Your task to perform on an android device: open device folders in google photos Image 0: 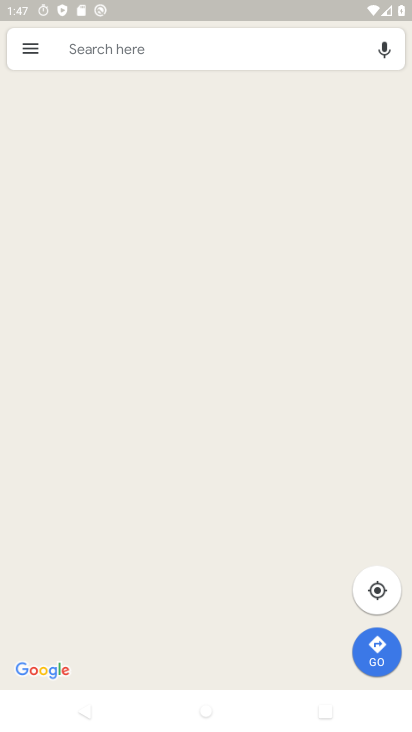
Step 0: drag from (275, 646) to (346, 237)
Your task to perform on an android device: open device folders in google photos Image 1: 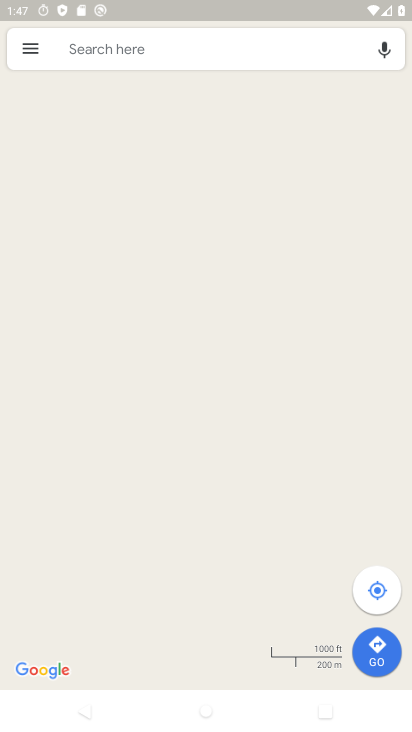
Step 1: press home button
Your task to perform on an android device: open device folders in google photos Image 2: 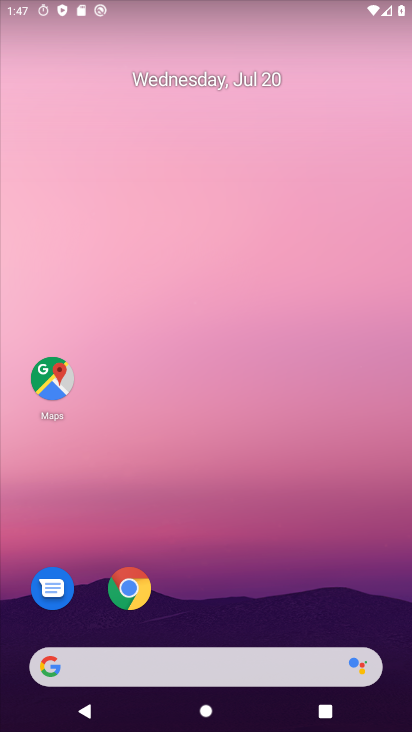
Step 2: drag from (321, 656) to (323, 24)
Your task to perform on an android device: open device folders in google photos Image 3: 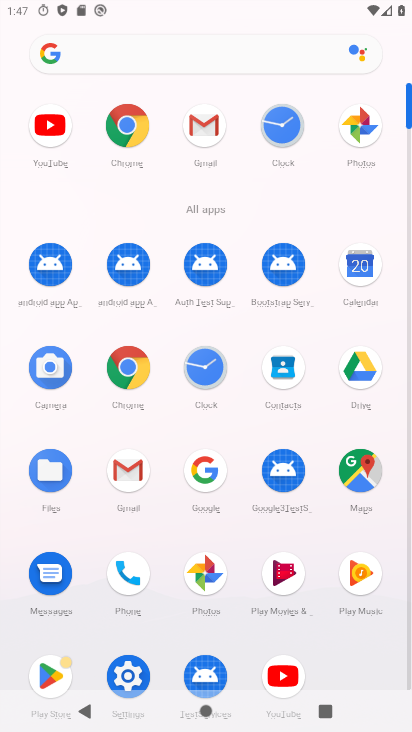
Step 3: click (207, 574)
Your task to perform on an android device: open device folders in google photos Image 4: 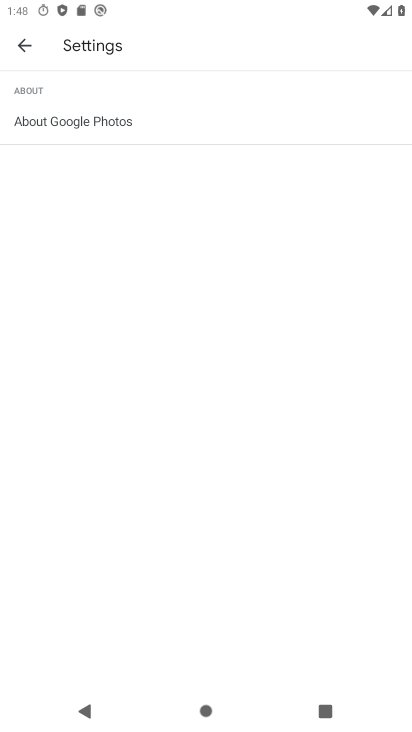
Step 4: press back button
Your task to perform on an android device: open device folders in google photos Image 5: 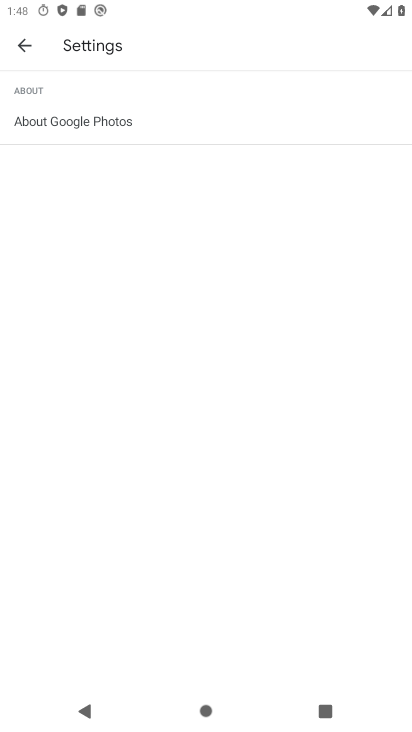
Step 5: press back button
Your task to perform on an android device: open device folders in google photos Image 6: 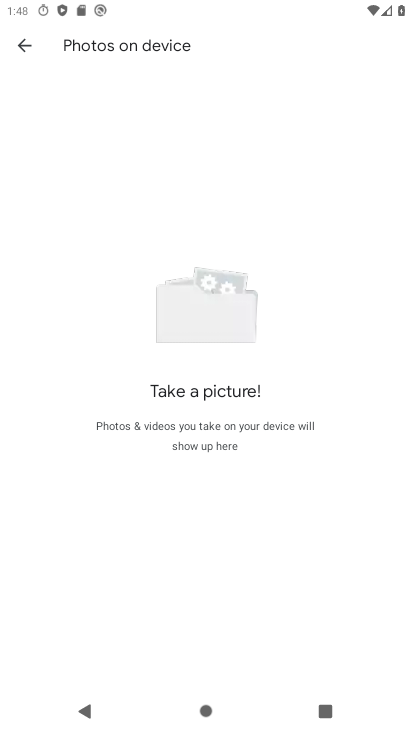
Step 6: press back button
Your task to perform on an android device: open device folders in google photos Image 7: 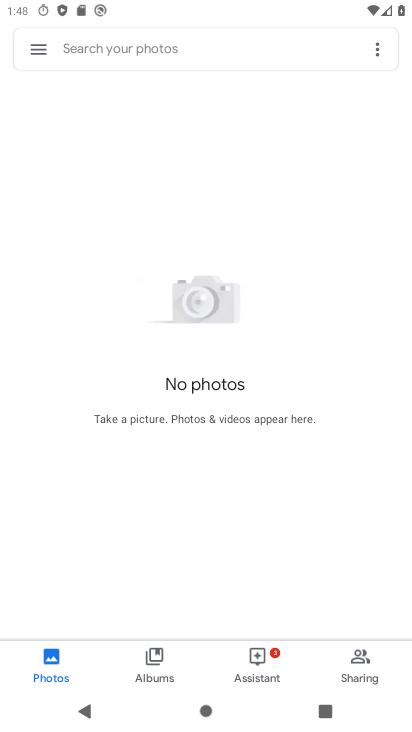
Step 7: click (48, 50)
Your task to perform on an android device: open device folders in google photos Image 8: 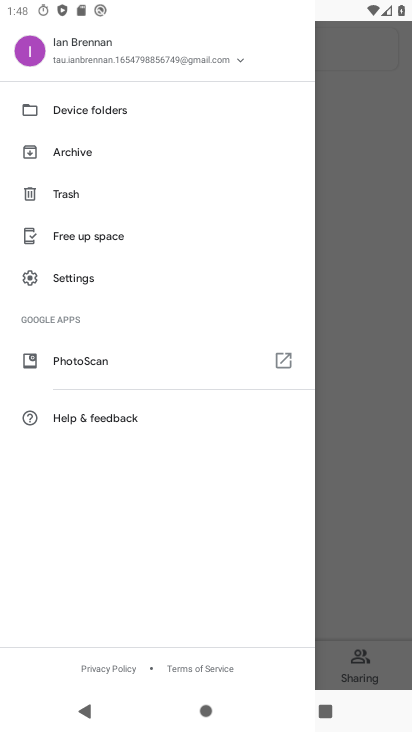
Step 8: click (89, 101)
Your task to perform on an android device: open device folders in google photos Image 9: 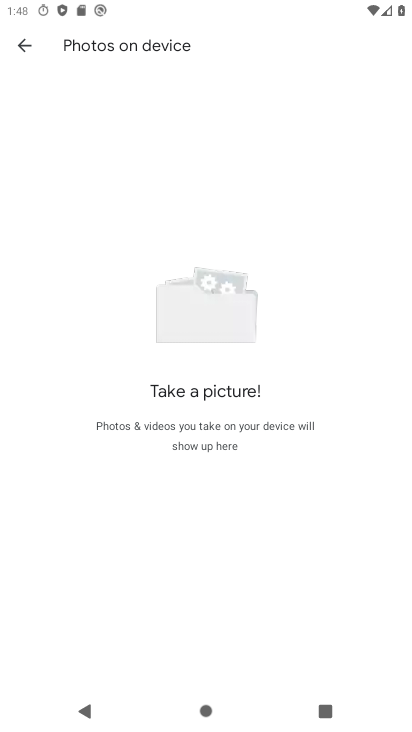
Step 9: task complete